Your task to perform on an android device: turn off wifi Image 0: 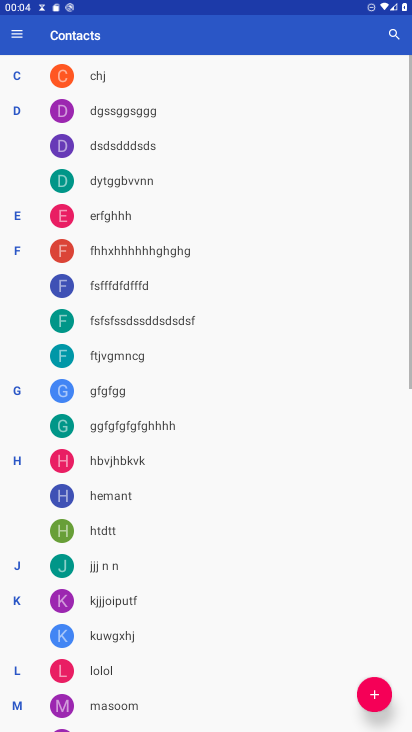
Step 0: drag from (315, 617) to (332, 290)
Your task to perform on an android device: turn off wifi Image 1: 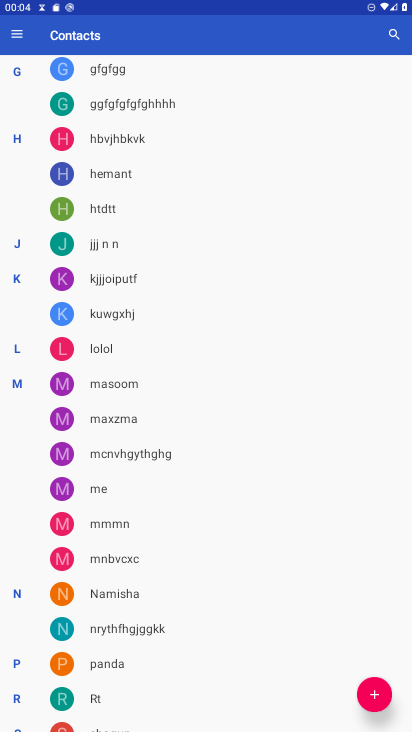
Step 1: press home button
Your task to perform on an android device: turn off wifi Image 2: 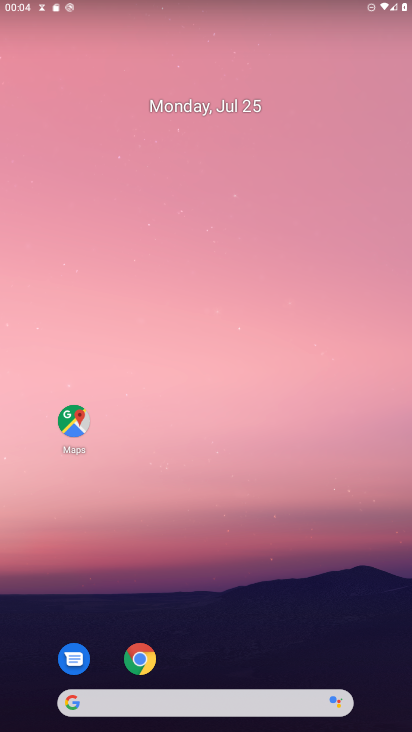
Step 2: drag from (235, 675) to (265, 82)
Your task to perform on an android device: turn off wifi Image 3: 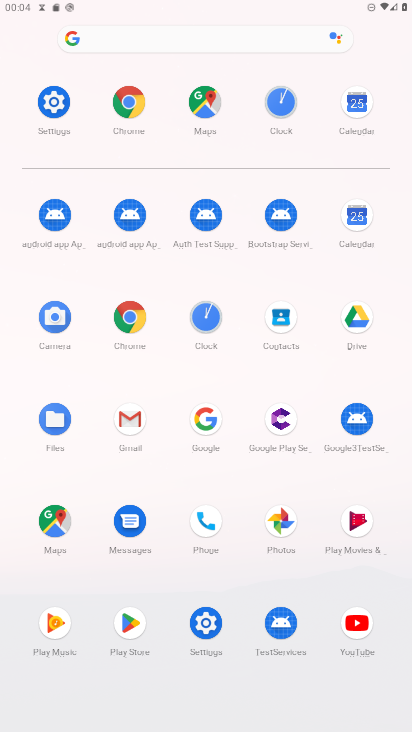
Step 3: click (49, 92)
Your task to perform on an android device: turn off wifi Image 4: 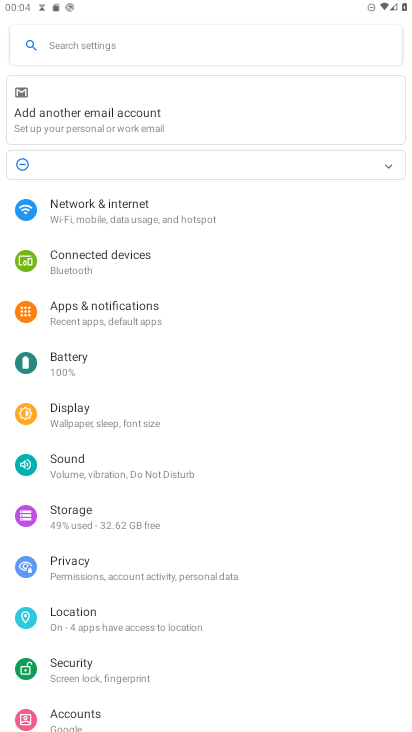
Step 4: click (159, 187)
Your task to perform on an android device: turn off wifi Image 5: 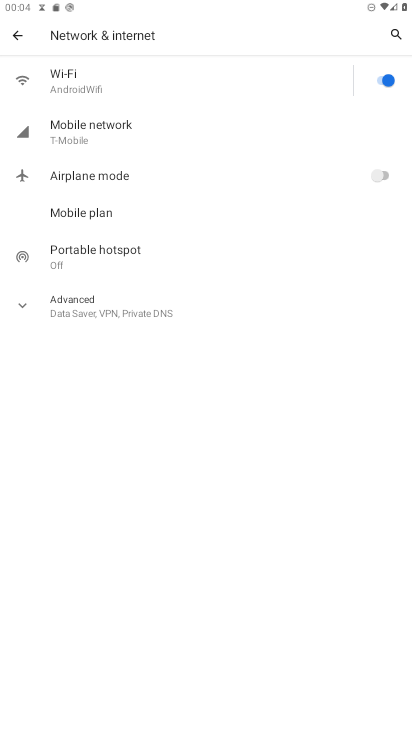
Step 5: click (399, 73)
Your task to perform on an android device: turn off wifi Image 6: 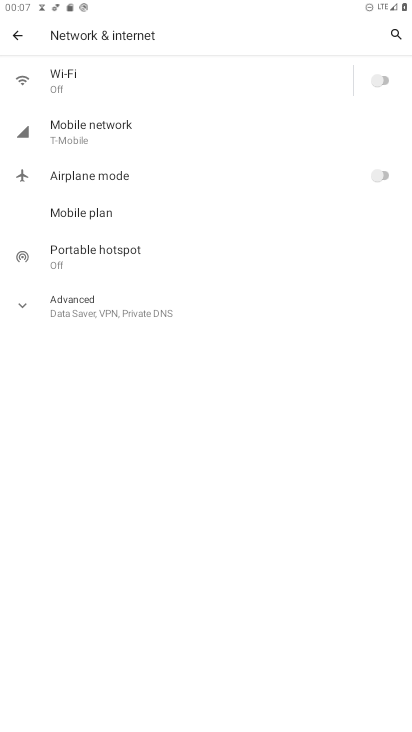
Step 6: task complete